Your task to perform on an android device: turn on the 24-hour format for clock Image 0: 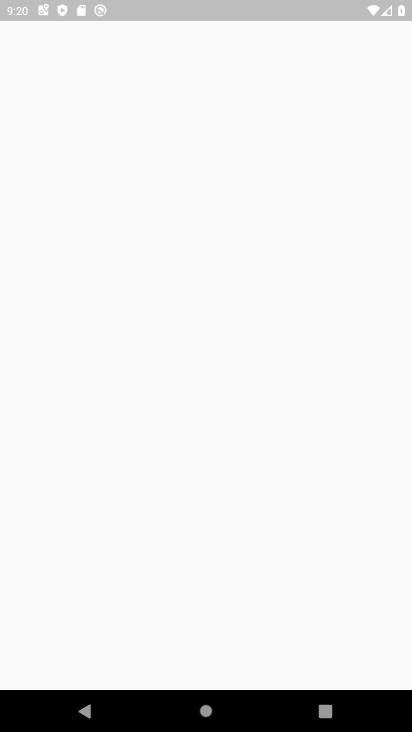
Step 0: press home button
Your task to perform on an android device: turn on the 24-hour format for clock Image 1: 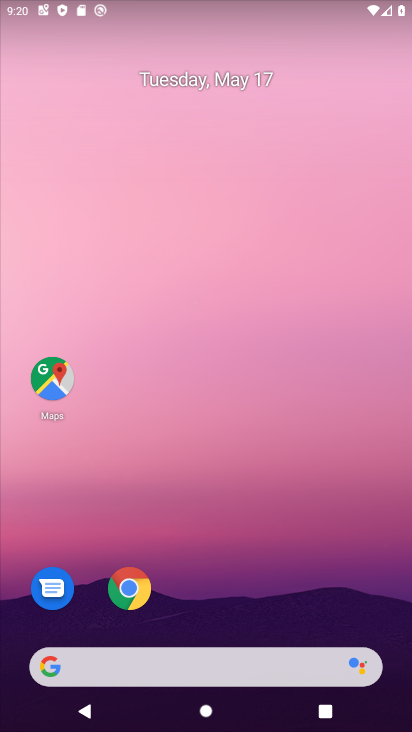
Step 1: drag from (205, 635) to (124, 12)
Your task to perform on an android device: turn on the 24-hour format for clock Image 2: 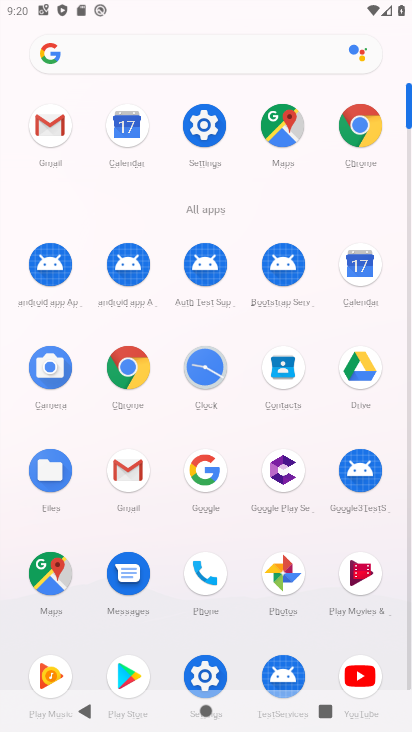
Step 2: click (204, 376)
Your task to perform on an android device: turn on the 24-hour format for clock Image 3: 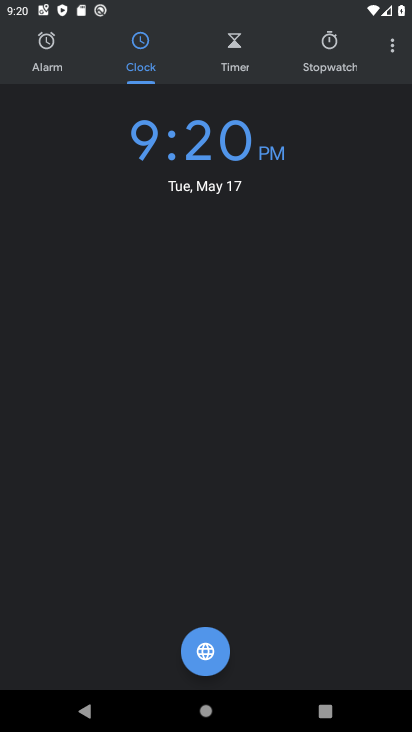
Step 3: click (386, 46)
Your task to perform on an android device: turn on the 24-hour format for clock Image 4: 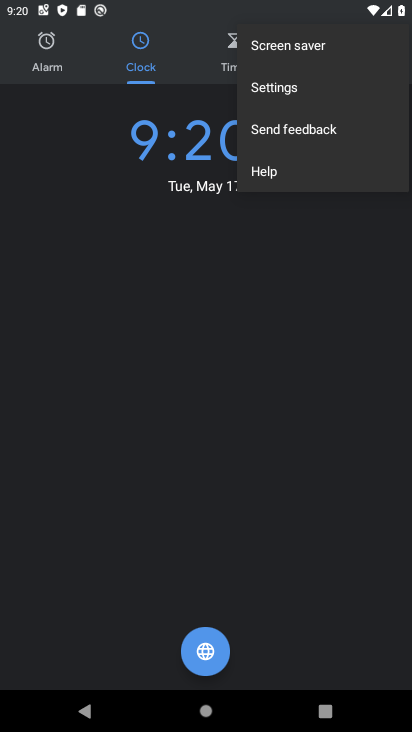
Step 4: click (297, 82)
Your task to perform on an android device: turn on the 24-hour format for clock Image 5: 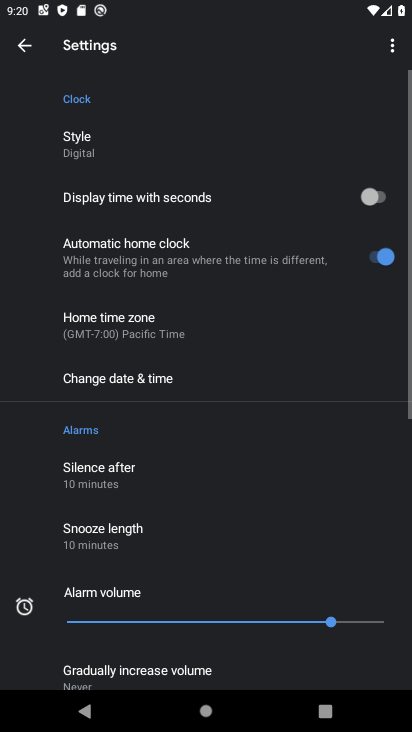
Step 5: drag from (193, 486) to (179, 288)
Your task to perform on an android device: turn on the 24-hour format for clock Image 6: 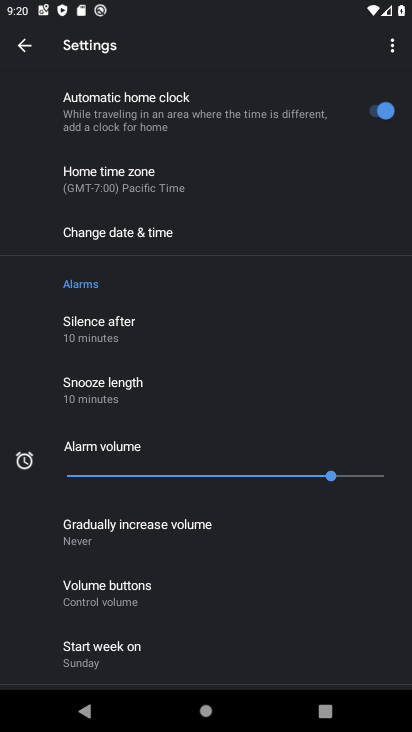
Step 6: click (149, 238)
Your task to perform on an android device: turn on the 24-hour format for clock Image 7: 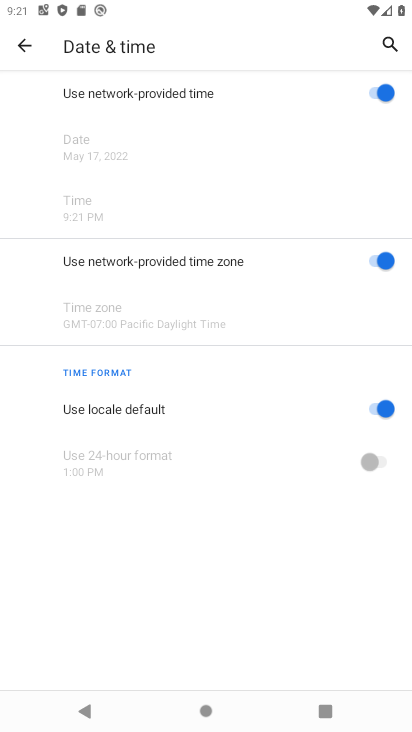
Step 7: click (378, 405)
Your task to perform on an android device: turn on the 24-hour format for clock Image 8: 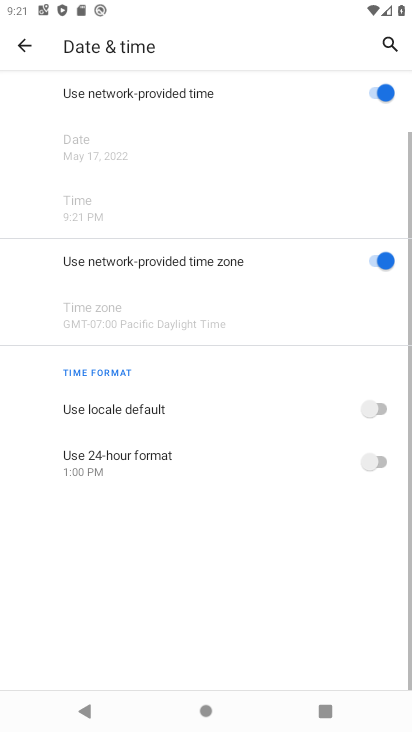
Step 8: click (374, 469)
Your task to perform on an android device: turn on the 24-hour format for clock Image 9: 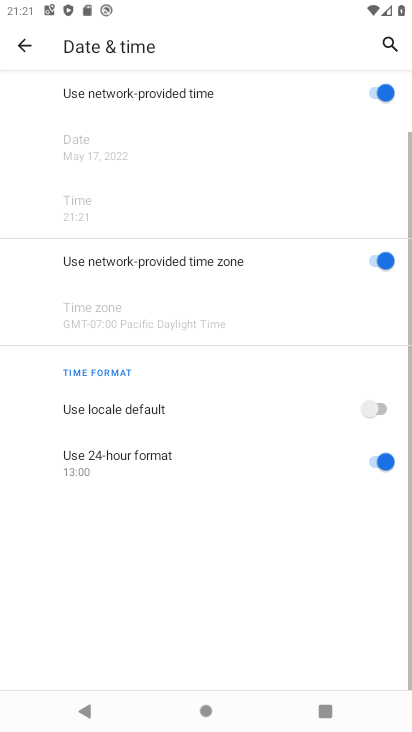
Step 9: task complete